Your task to perform on an android device: What is the news today? Image 0: 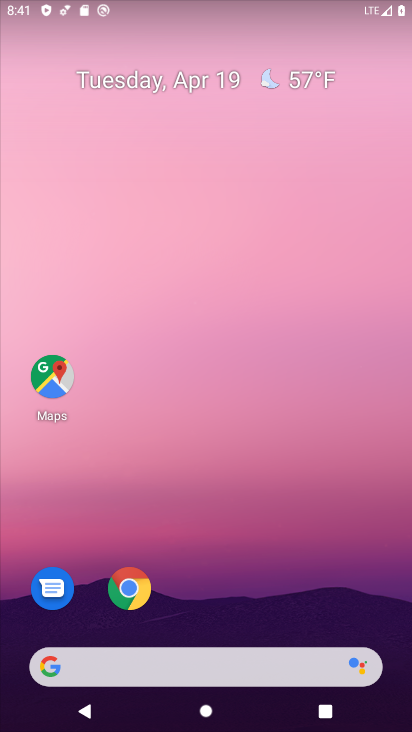
Step 0: drag from (245, 608) to (229, 2)
Your task to perform on an android device: What is the news today? Image 1: 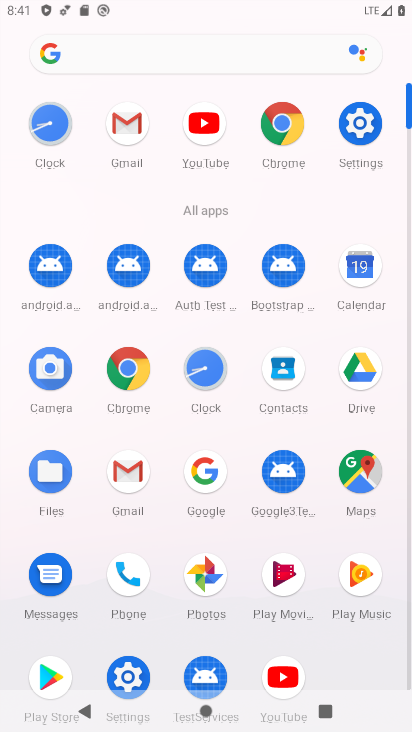
Step 1: click (141, 53)
Your task to perform on an android device: What is the news today? Image 2: 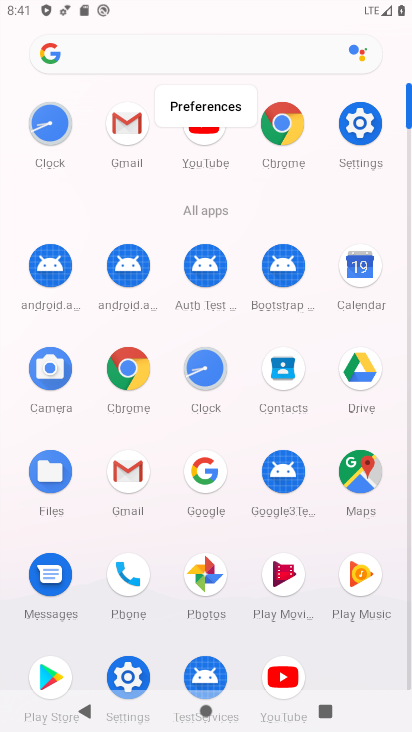
Step 2: click (141, 53)
Your task to perform on an android device: What is the news today? Image 3: 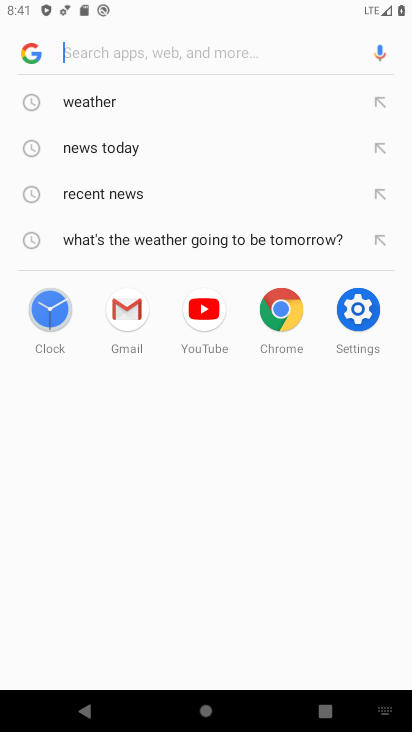
Step 3: type "what is the news today"
Your task to perform on an android device: What is the news today? Image 4: 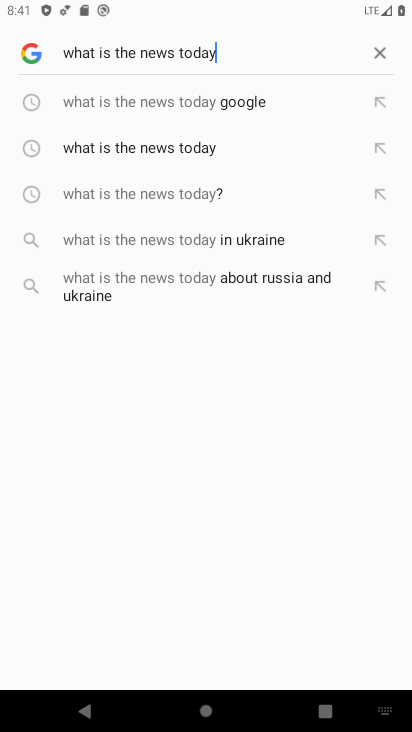
Step 4: click (201, 193)
Your task to perform on an android device: What is the news today? Image 5: 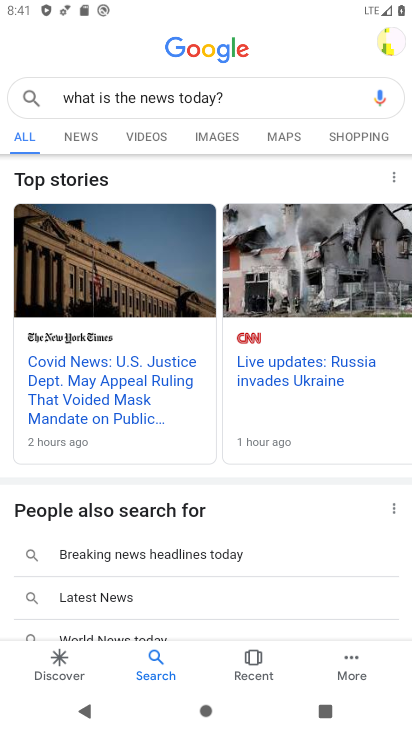
Step 5: click (94, 134)
Your task to perform on an android device: What is the news today? Image 6: 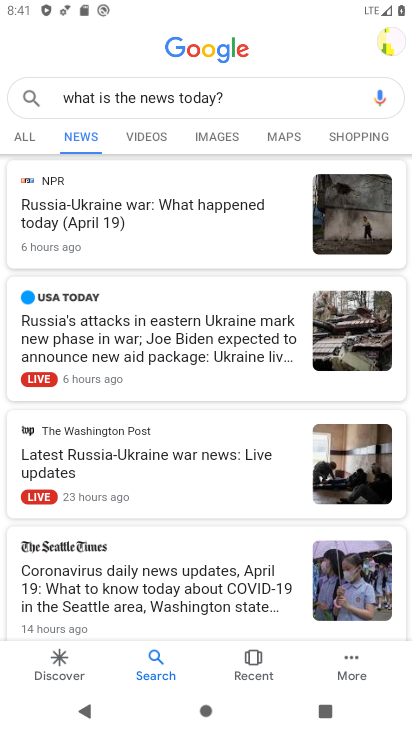
Step 6: task complete